Your task to perform on an android device: star an email in the gmail app Image 0: 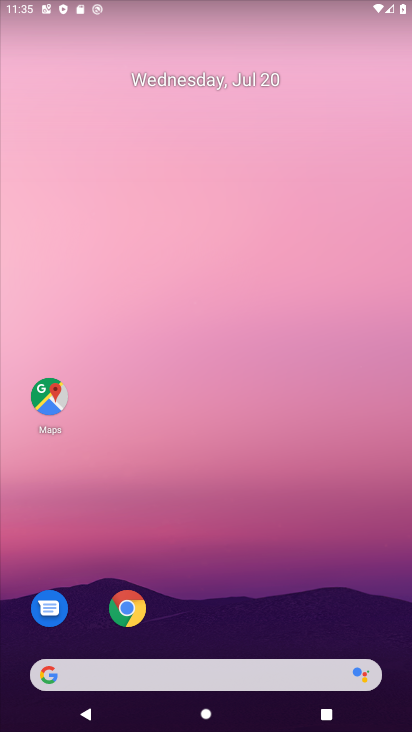
Step 0: drag from (394, 630) to (151, 41)
Your task to perform on an android device: star an email in the gmail app Image 1: 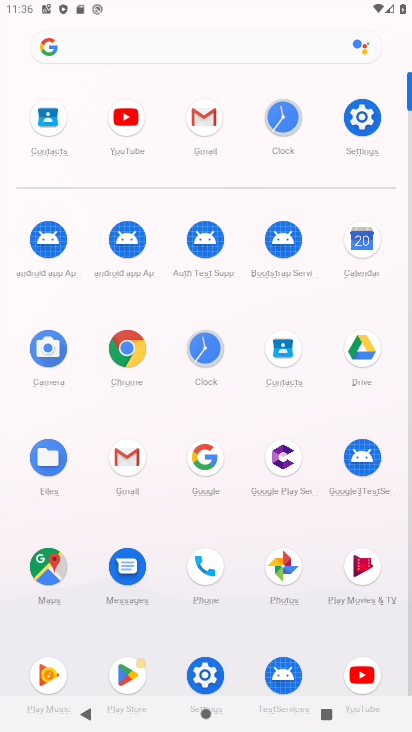
Step 1: click (134, 466)
Your task to perform on an android device: star an email in the gmail app Image 2: 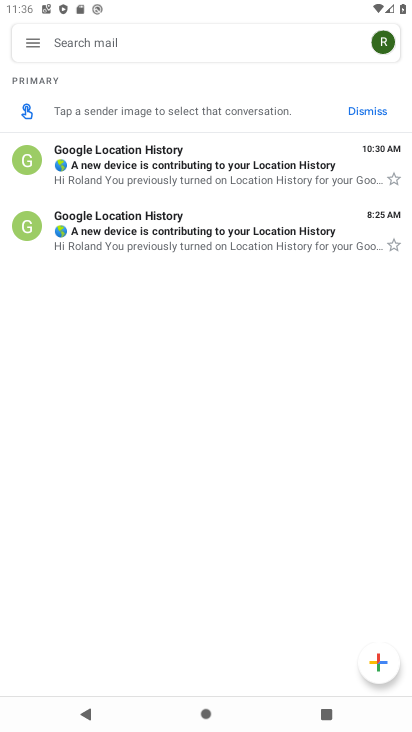
Step 2: click (395, 175)
Your task to perform on an android device: star an email in the gmail app Image 3: 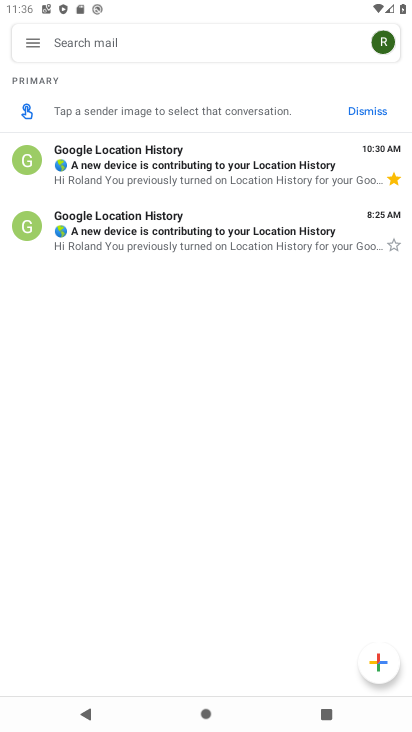
Step 3: task complete